Your task to perform on an android device: stop showing notifications on the lock screen Image 0: 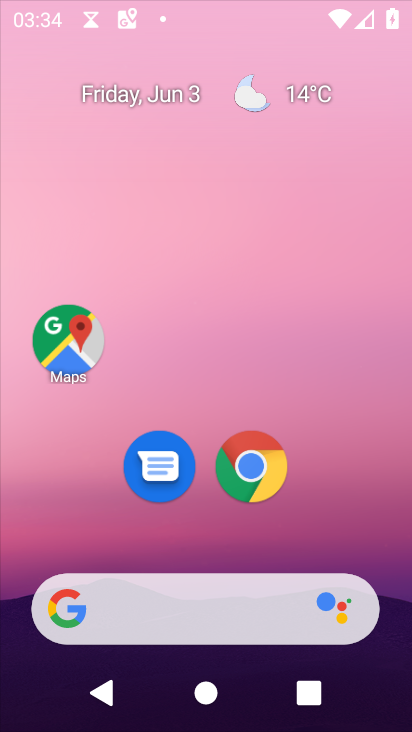
Step 0: press home button
Your task to perform on an android device: stop showing notifications on the lock screen Image 1: 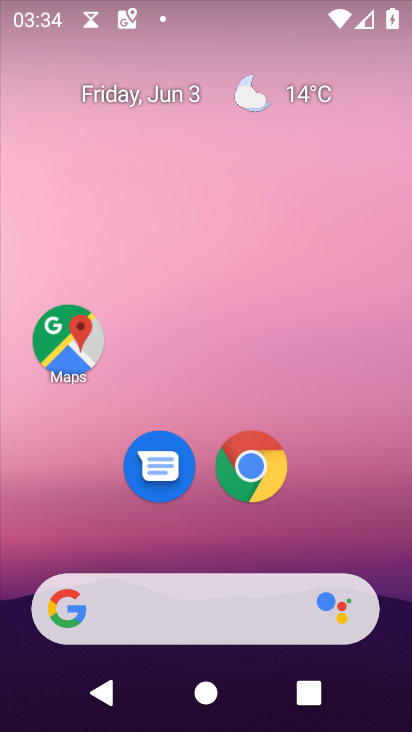
Step 1: drag from (210, 541) to (268, 24)
Your task to perform on an android device: stop showing notifications on the lock screen Image 2: 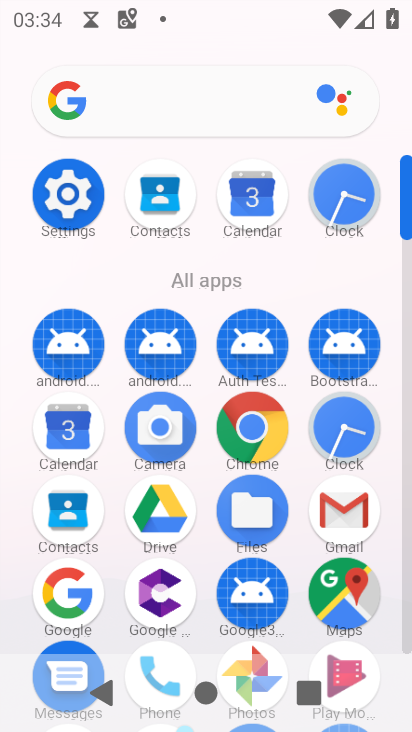
Step 2: click (65, 186)
Your task to perform on an android device: stop showing notifications on the lock screen Image 3: 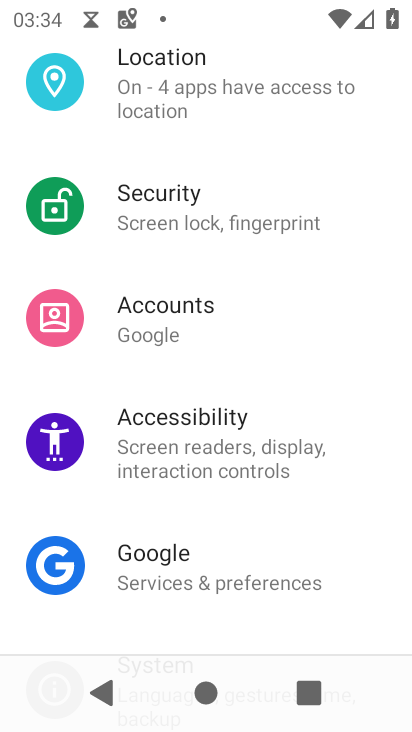
Step 3: drag from (183, 89) to (222, 589)
Your task to perform on an android device: stop showing notifications on the lock screen Image 4: 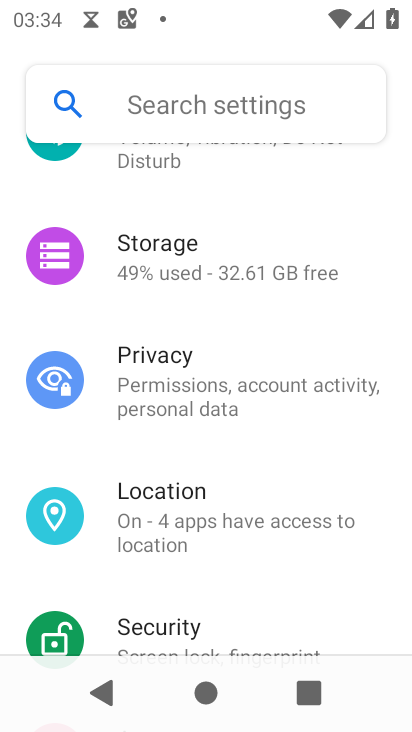
Step 4: drag from (223, 196) to (277, 676)
Your task to perform on an android device: stop showing notifications on the lock screen Image 5: 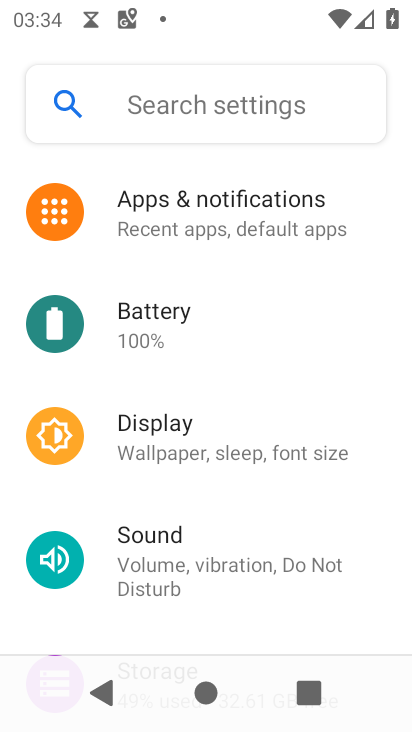
Step 5: click (231, 218)
Your task to perform on an android device: stop showing notifications on the lock screen Image 6: 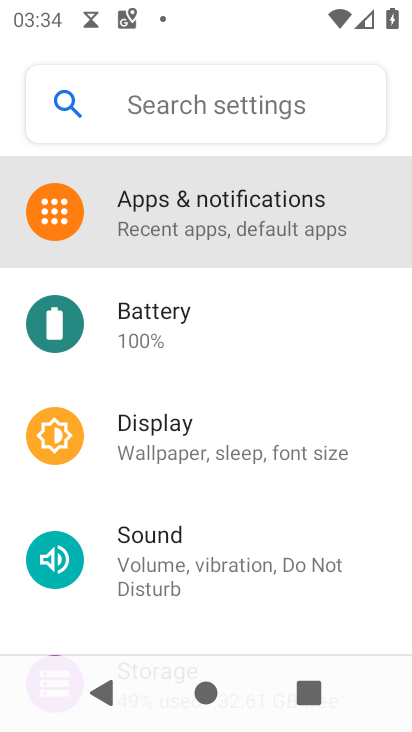
Step 6: click (105, 212)
Your task to perform on an android device: stop showing notifications on the lock screen Image 7: 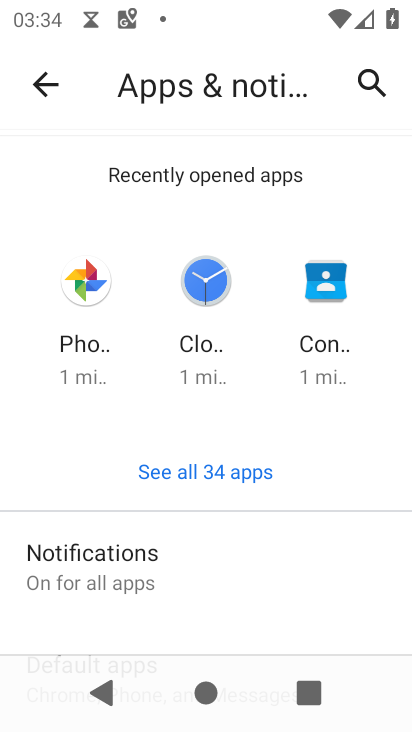
Step 7: drag from (185, 523) to (238, 93)
Your task to perform on an android device: stop showing notifications on the lock screen Image 8: 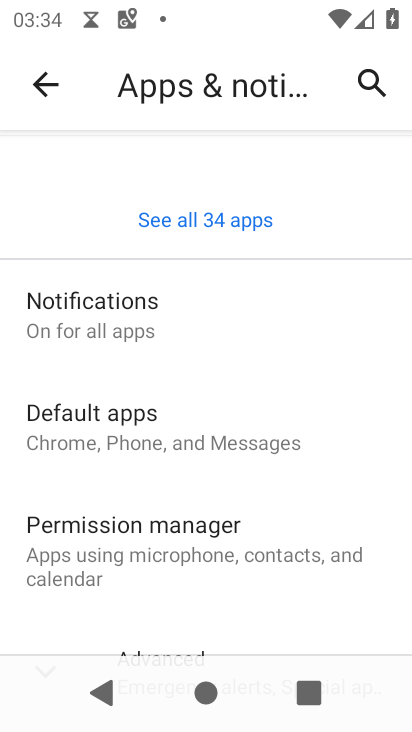
Step 8: click (166, 318)
Your task to perform on an android device: stop showing notifications on the lock screen Image 9: 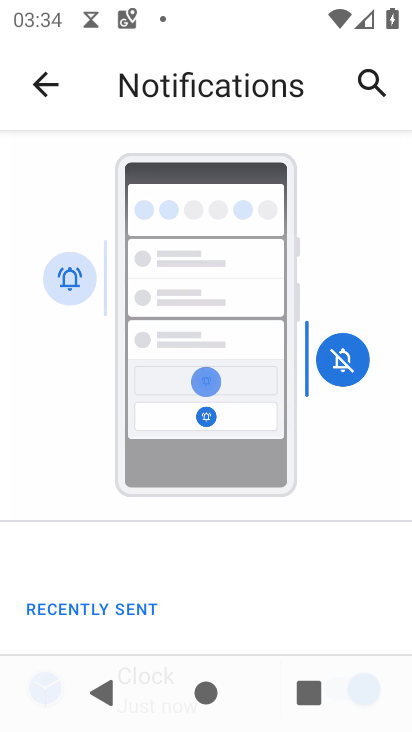
Step 9: click (219, 100)
Your task to perform on an android device: stop showing notifications on the lock screen Image 10: 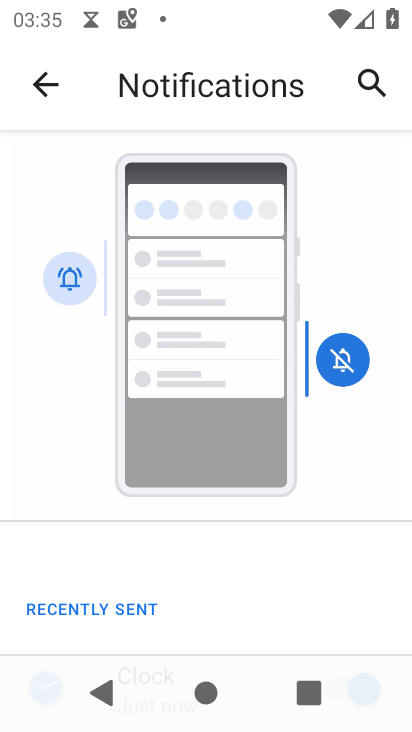
Step 10: drag from (245, 660) to (269, 156)
Your task to perform on an android device: stop showing notifications on the lock screen Image 11: 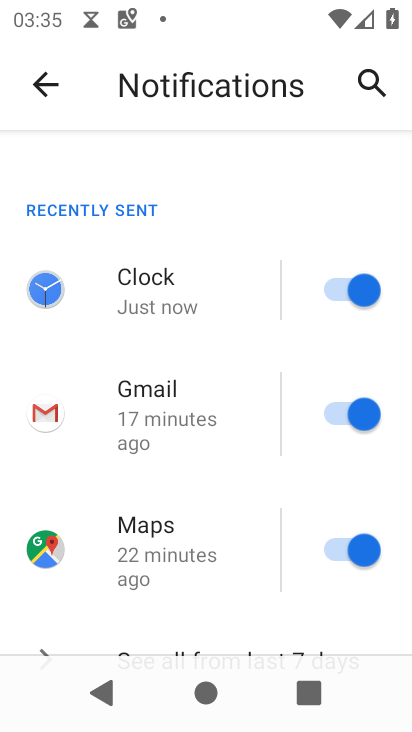
Step 11: click (247, 149)
Your task to perform on an android device: stop showing notifications on the lock screen Image 12: 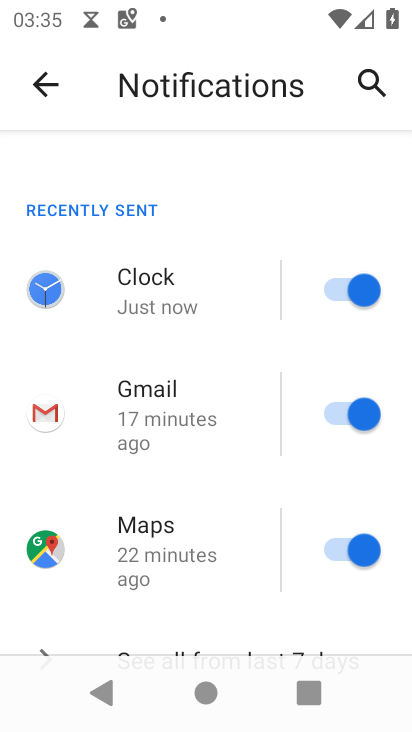
Step 12: drag from (231, 620) to (258, 129)
Your task to perform on an android device: stop showing notifications on the lock screen Image 13: 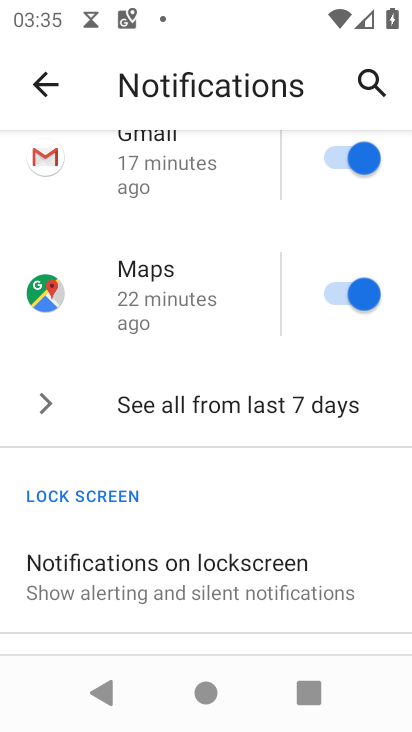
Step 13: click (209, 575)
Your task to perform on an android device: stop showing notifications on the lock screen Image 14: 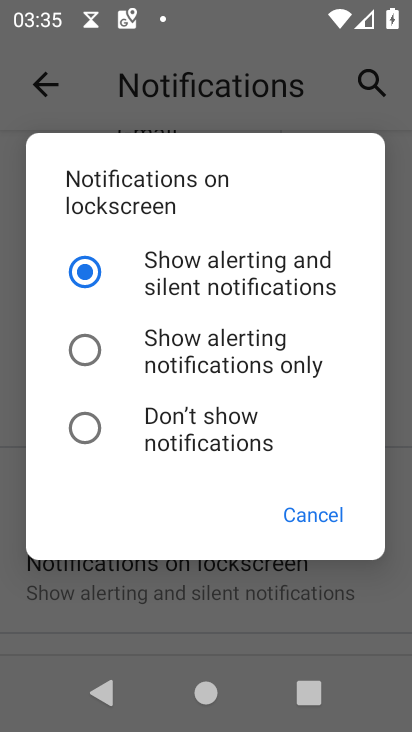
Step 14: click (86, 421)
Your task to perform on an android device: stop showing notifications on the lock screen Image 15: 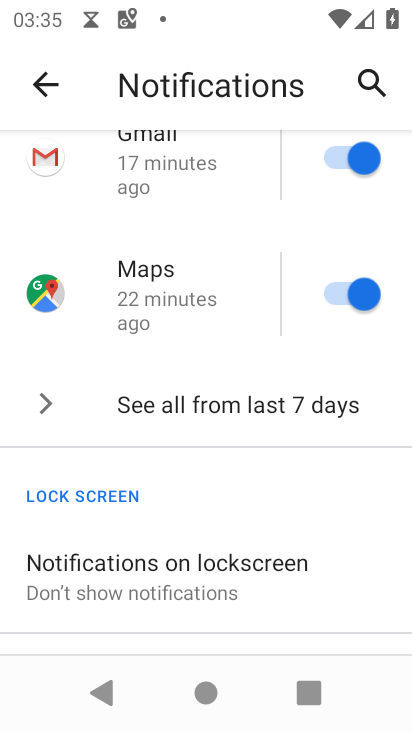
Step 15: task complete